Your task to perform on an android device: turn notification dots on Image 0: 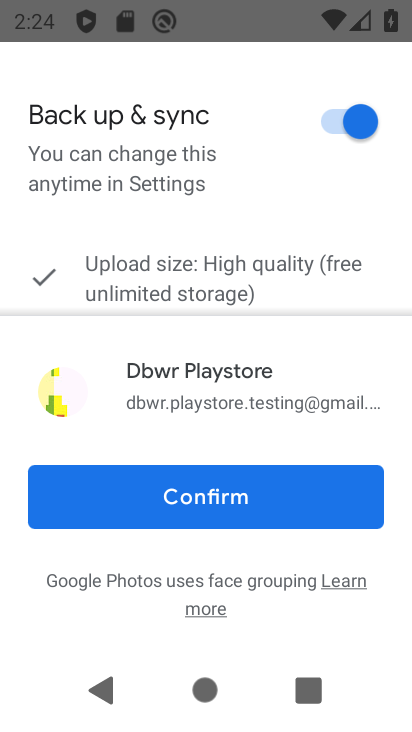
Step 0: press home button
Your task to perform on an android device: turn notification dots on Image 1: 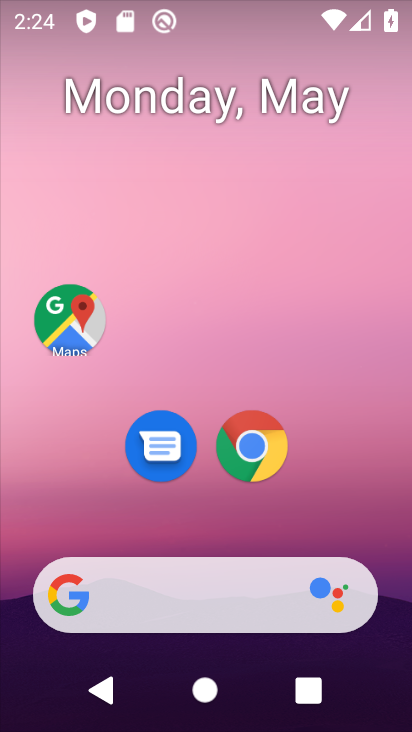
Step 1: drag from (177, 513) to (189, 126)
Your task to perform on an android device: turn notification dots on Image 2: 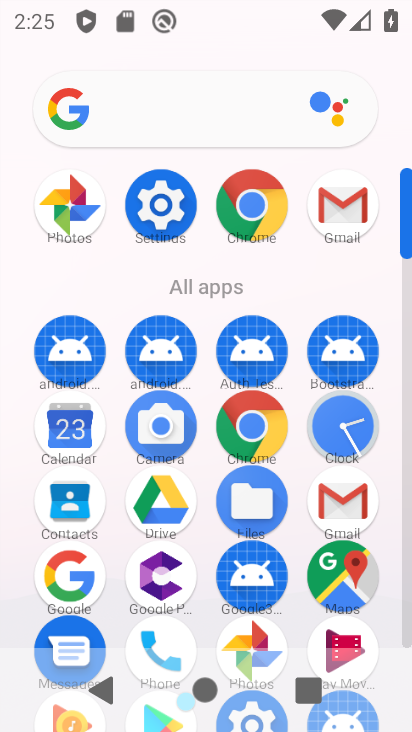
Step 2: click (164, 192)
Your task to perform on an android device: turn notification dots on Image 3: 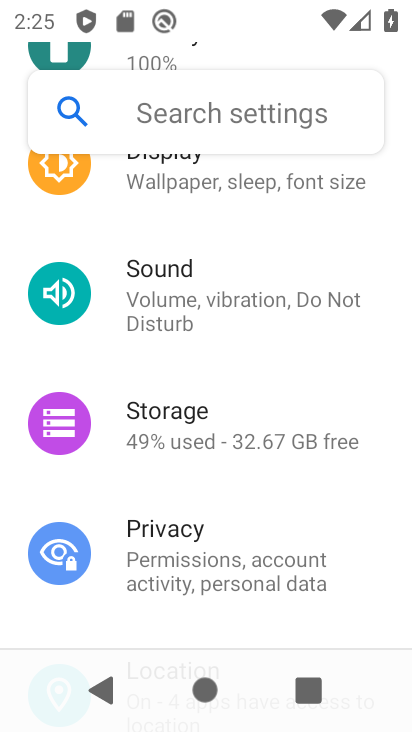
Step 3: drag from (125, 204) to (235, 619)
Your task to perform on an android device: turn notification dots on Image 4: 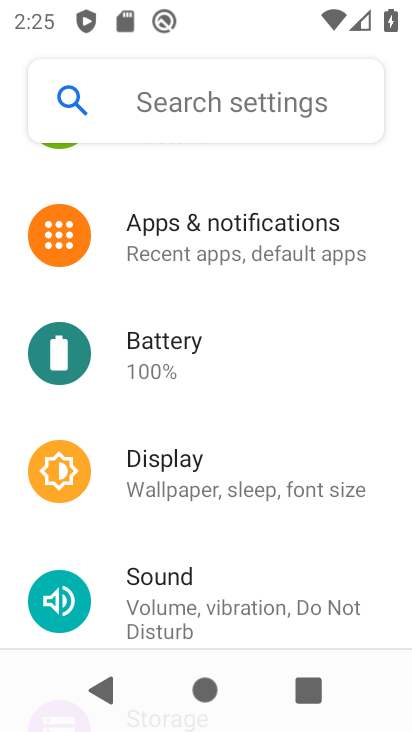
Step 4: click (213, 257)
Your task to perform on an android device: turn notification dots on Image 5: 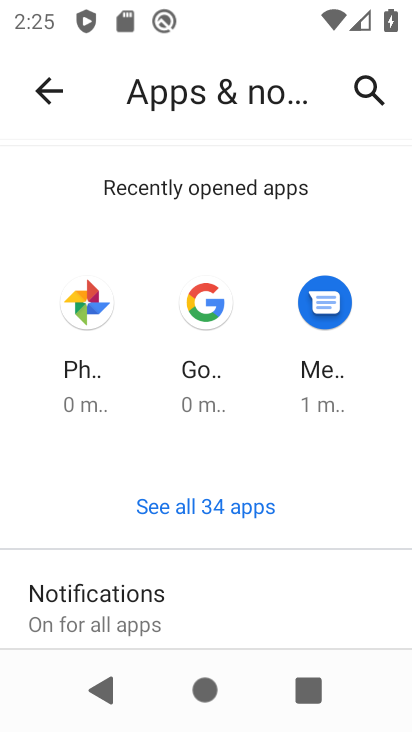
Step 5: click (77, 615)
Your task to perform on an android device: turn notification dots on Image 6: 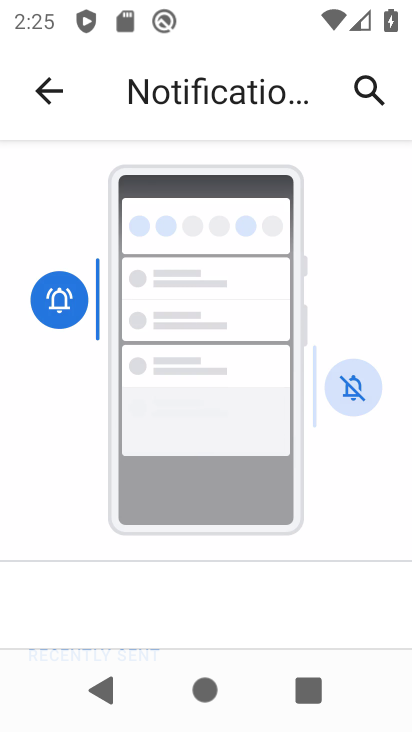
Step 6: drag from (77, 615) to (212, 110)
Your task to perform on an android device: turn notification dots on Image 7: 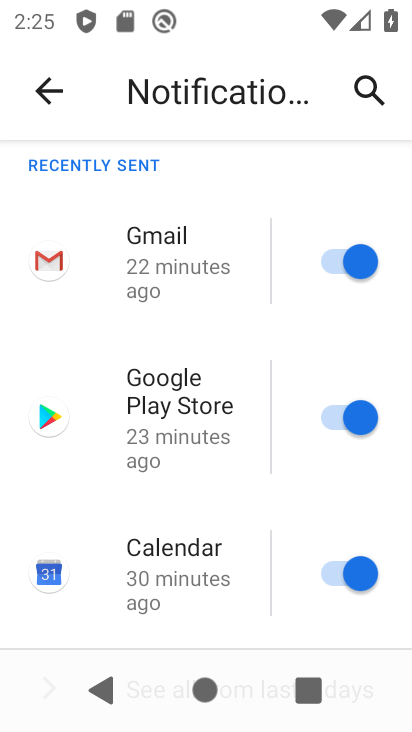
Step 7: drag from (126, 508) to (231, 28)
Your task to perform on an android device: turn notification dots on Image 8: 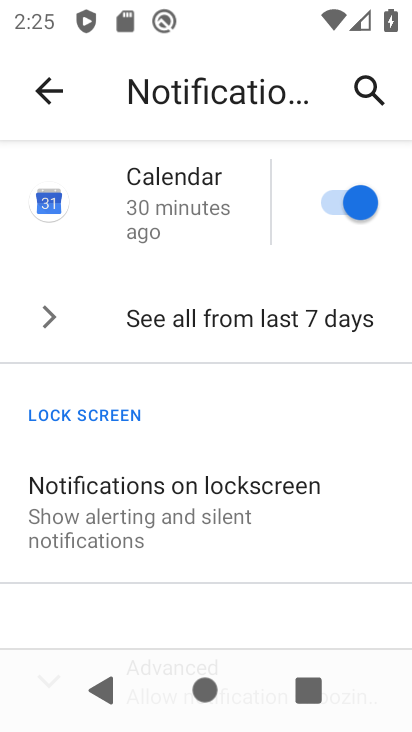
Step 8: drag from (76, 570) to (174, 94)
Your task to perform on an android device: turn notification dots on Image 9: 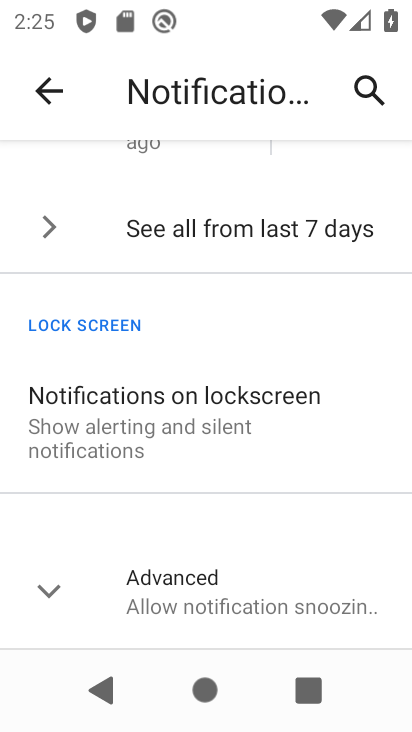
Step 9: click (207, 604)
Your task to perform on an android device: turn notification dots on Image 10: 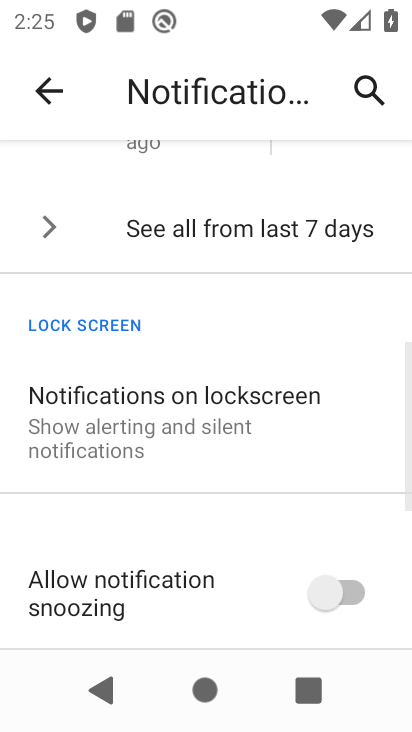
Step 10: task complete